Your task to perform on an android device: Search for Italian restaurants on Maps Image 0: 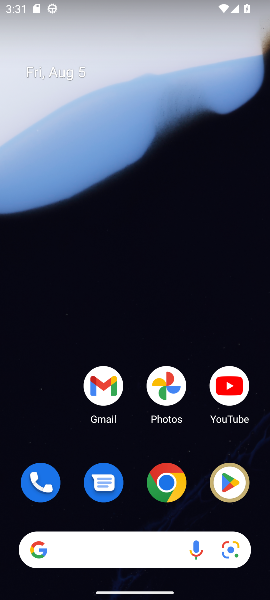
Step 0: press home button
Your task to perform on an android device: Search for Italian restaurants on Maps Image 1: 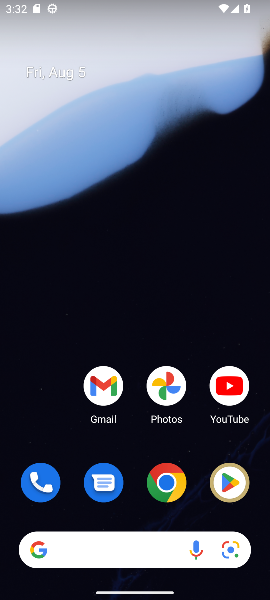
Step 1: drag from (129, 459) to (171, 12)
Your task to perform on an android device: Search for Italian restaurants on Maps Image 2: 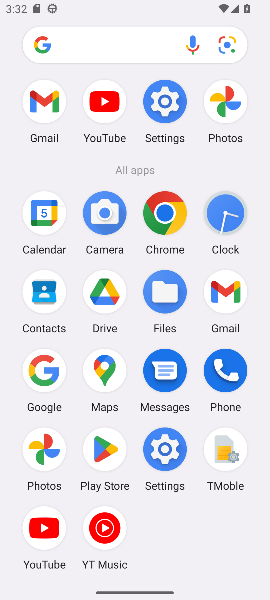
Step 2: click (104, 366)
Your task to perform on an android device: Search for Italian restaurants on Maps Image 3: 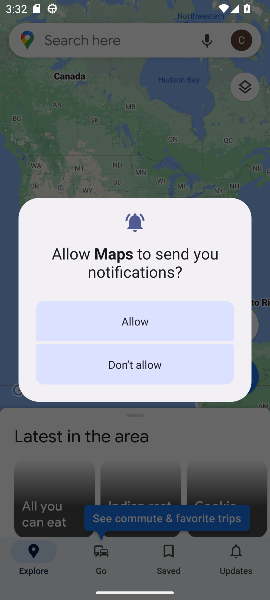
Step 3: click (139, 319)
Your task to perform on an android device: Search for Italian restaurants on Maps Image 4: 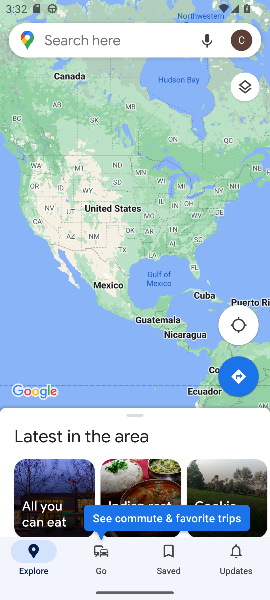
Step 4: click (108, 36)
Your task to perform on an android device: Search for Italian restaurants on Maps Image 5: 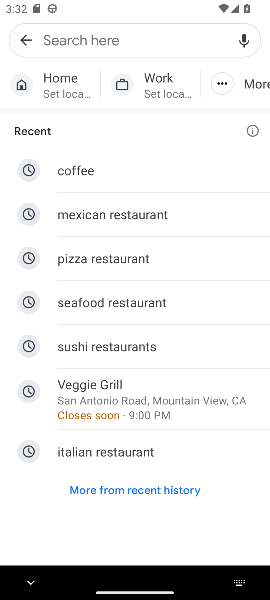
Step 5: click (92, 449)
Your task to perform on an android device: Search for Italian restaurants on Maps Image 6: 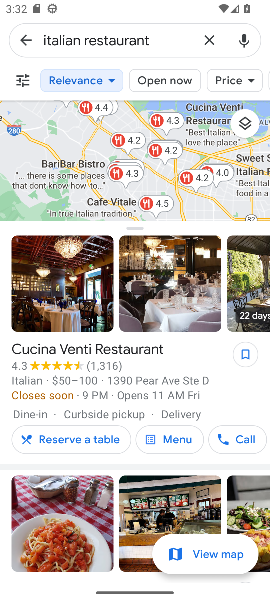
Step 6: task complete